Your task to perform on an android device: see sites visited before in the chrome app Image 0: 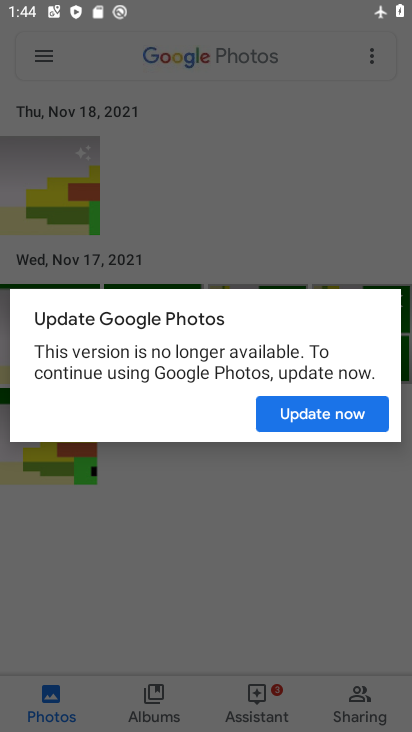
Step 0: press home button
Your task to perform on an android device: see sites visited before in the chrome app Image 1: 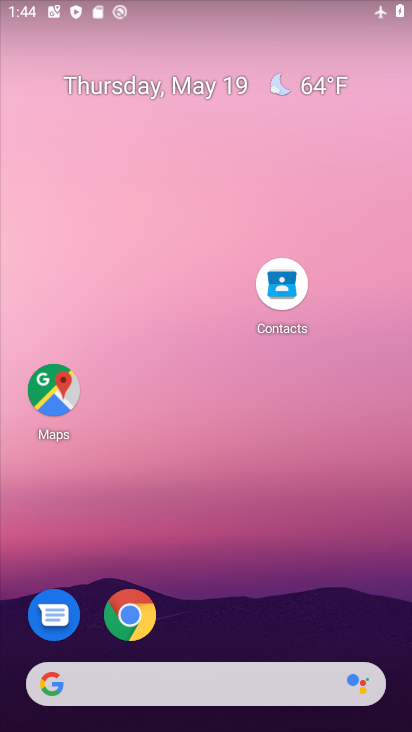
Step 1: click (129, 621)
Your task to perform on an android device: see sites visited before in the chrome app Image 2: 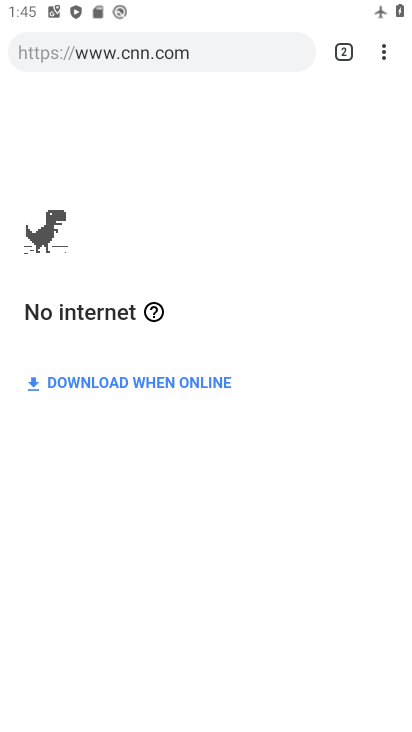
Step 2: click (382, 53)
Your task to perform on an android device: see sites visited before in the chrome app Image 3: 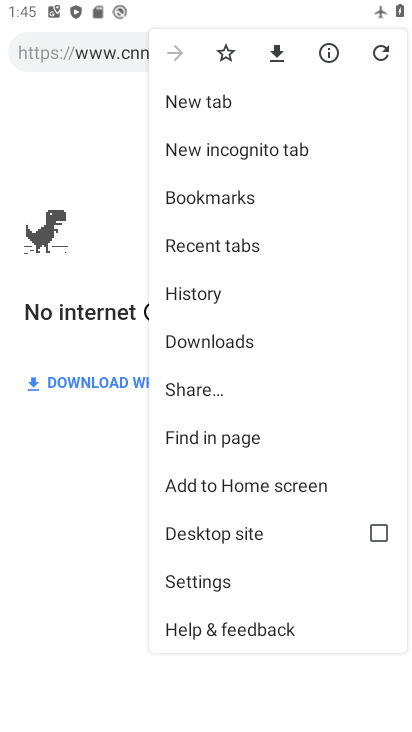
Step 3: click (212, 299)
Your task to perform on an android device: see sites visited before in the chrome app Image 4: 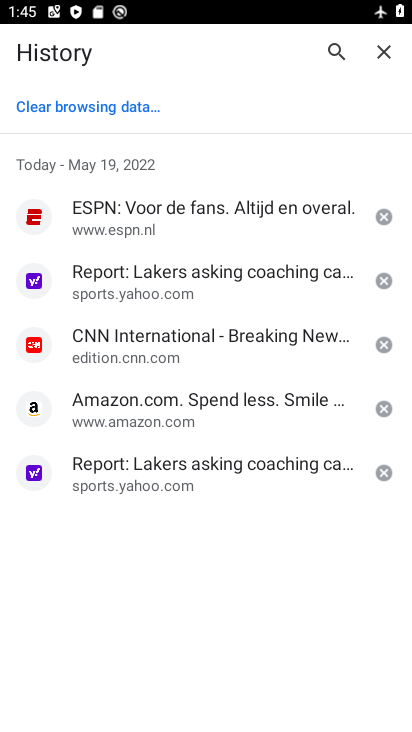
Step 4: task complete